Your task to perform on an android device: Do I have any events tomorrow? Image 0: 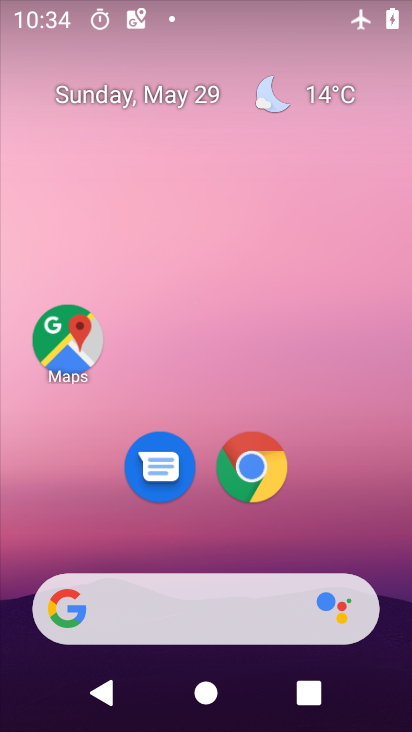
Step 0: drag from (196, 530) to (198, 128)
Your task to perform on an android device: Do I have any events tomorrow? Image 1: 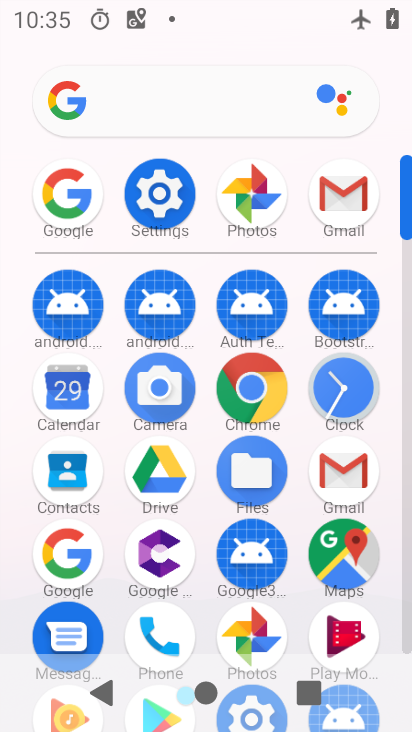
Step 1: click (62, 375)
Your task to perform on an android device: Do I have any events tomorrow? Image 2: 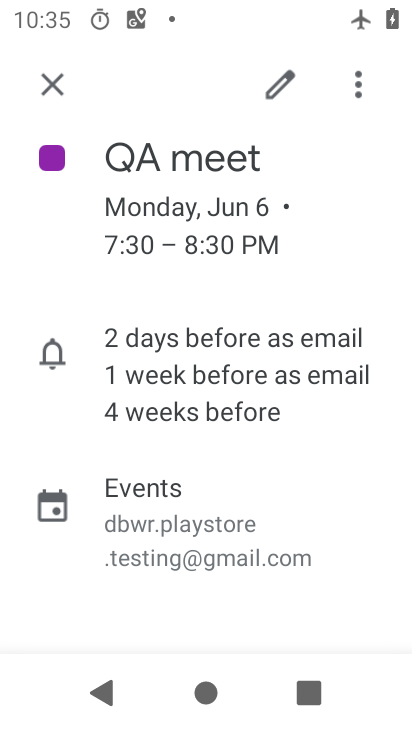
Step 2: click (48, 81)
Your task to perform on an android device: Do I have any events tomorrow? Image 3: 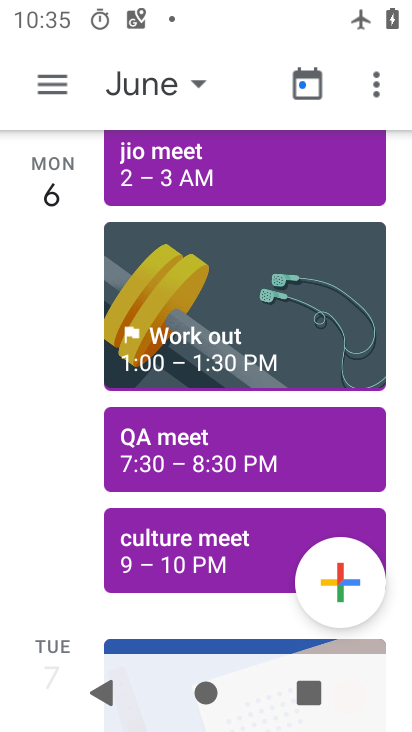
Step 3: drag from (249, 503) to (221, 306)
Your task to perform on an android device: Do I have any events tomorrow? Image 4: 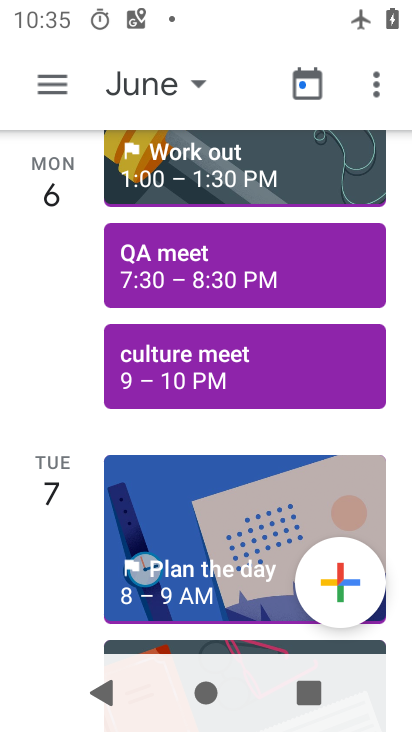
Step 4: click (193, 76)
Your task to perform on an android device: Do I have any events tomorrow? Image 5: 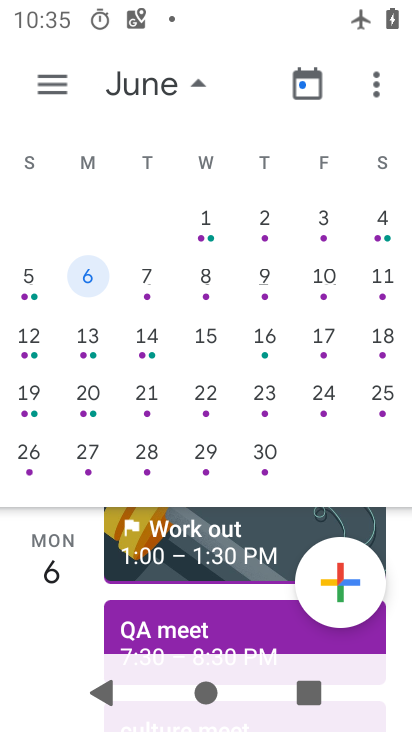
Step 5: drag from (68, 317) to (325, 327)
Your task to perform on an android device: Do I have any events tomorrow? Image 6: 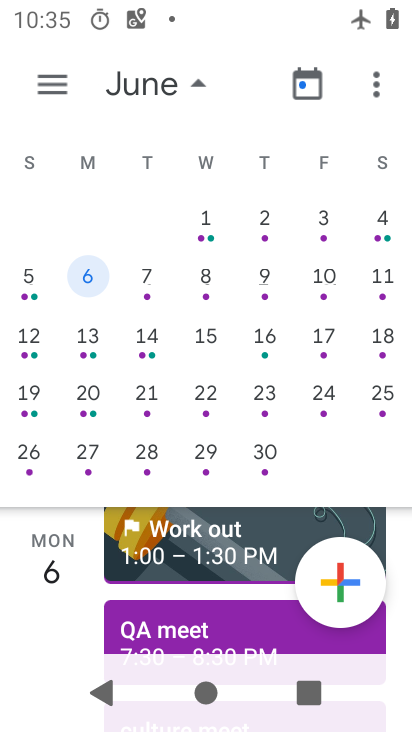
Step 6: drag from (50, 346) to (389, 336)
Your task to perform on an android device: Do I have any events tomorrow? Image 7: 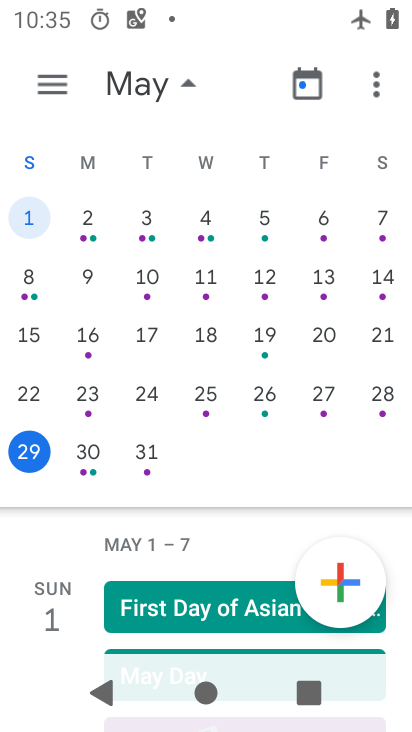
Step 7: click (70, 470)
Your task to perform on an android device: Do I have any events tomorrow? Image 8: 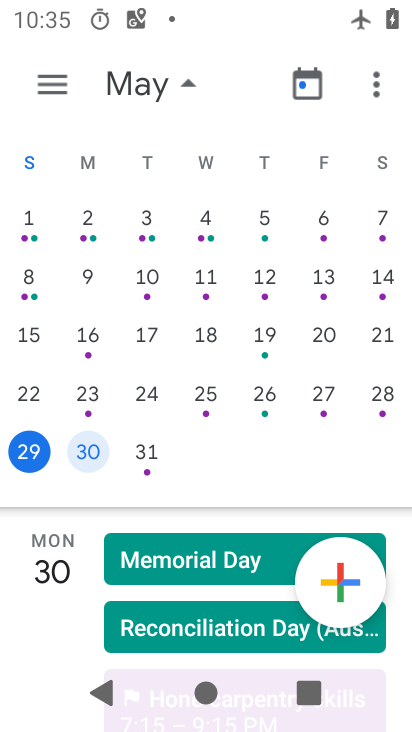
Step 8: task complete